Your task to perform on an android device: turn on bluetooth scan Image 0: 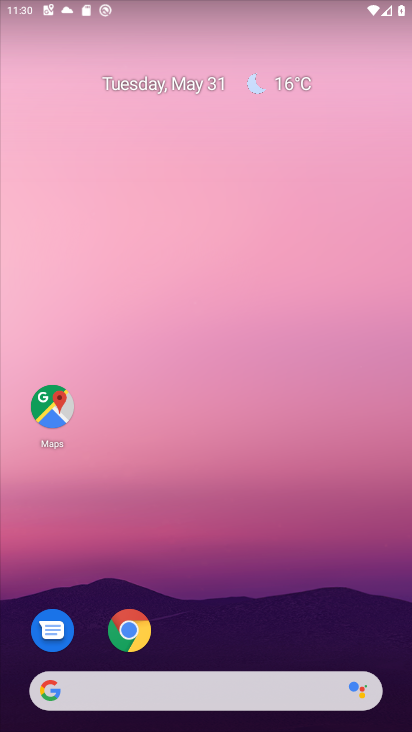
Step 0: drag from (259, 510) to (192, 100)
Your task to perform on an android device: turn on bluetooth scan Image 1: 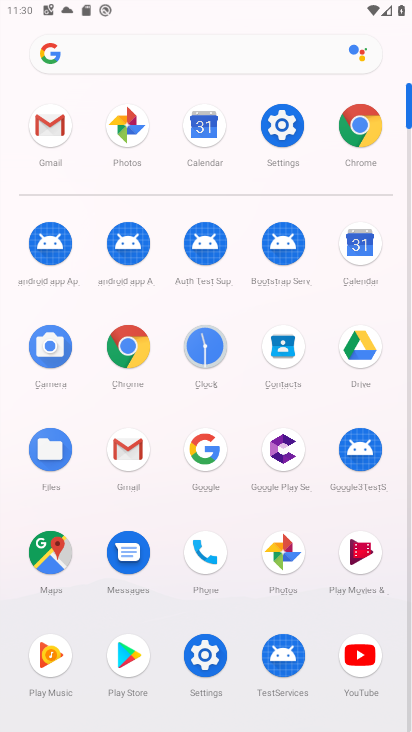
Step 1: click (273, 121)
Your task to perform on an android device: turn on bluetooth scan Image 2: 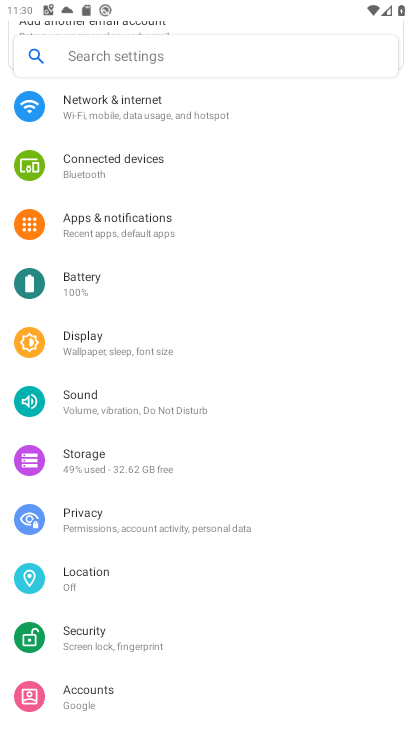
Step 2: click (114, 567)
Your task to perform on an android device: turn on bluetooth scan Image 3: 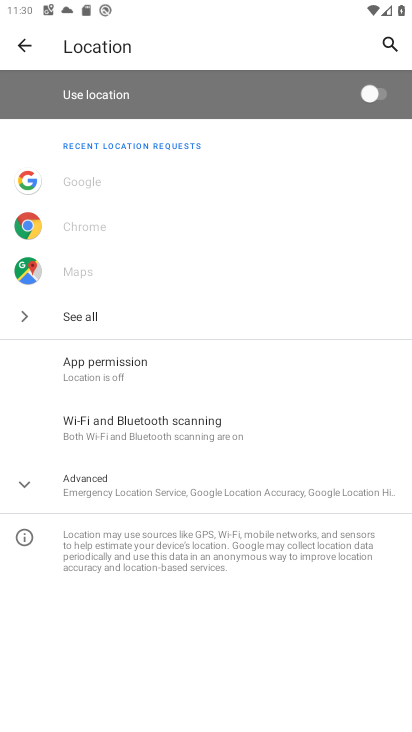
Step 3: click (147, 367)
Your task to perform on an android device: turn on bluetooth scan Image 4: 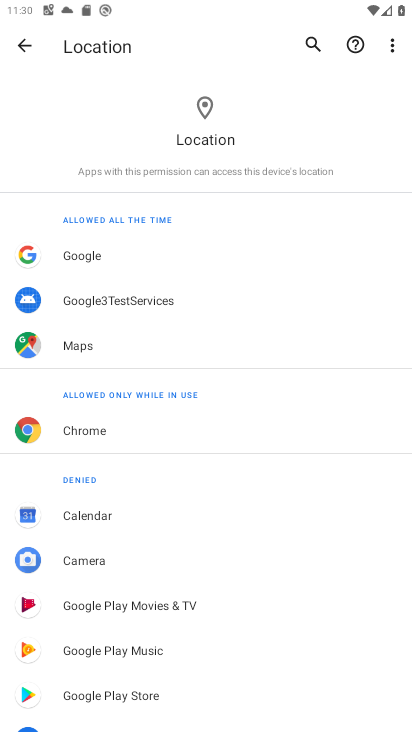
Step 4: click (21, 38)
Your task to perform on an android device: turn on bluetooth scan Image 5: 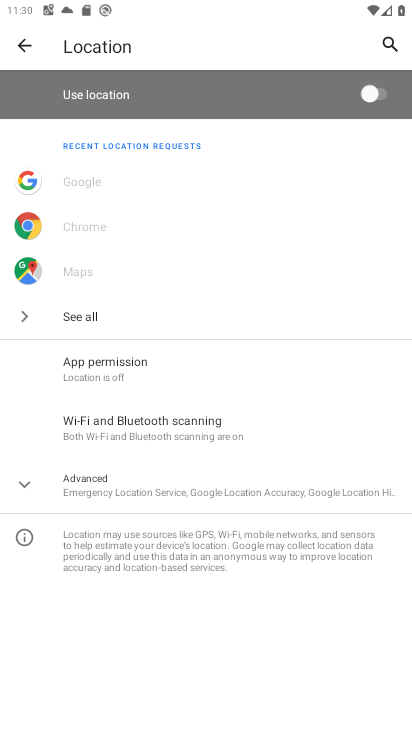
Step 5: click (95, 439)
Your task to perform on an android device: turn on bluetooth scan Image 6: 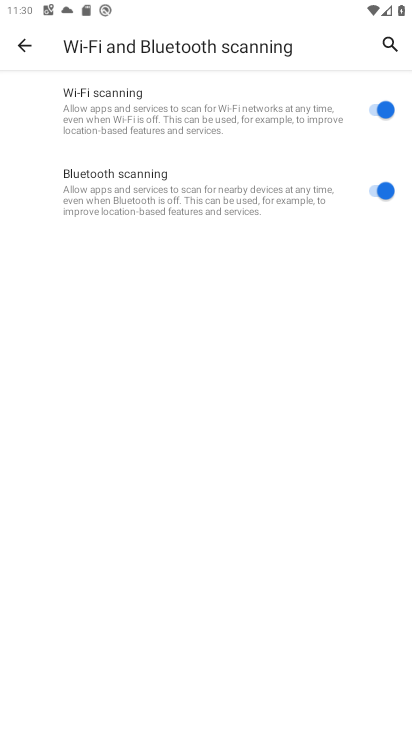
Step 6: task complete